Your task to perform on an android device: open app "Gmail" Image 0: 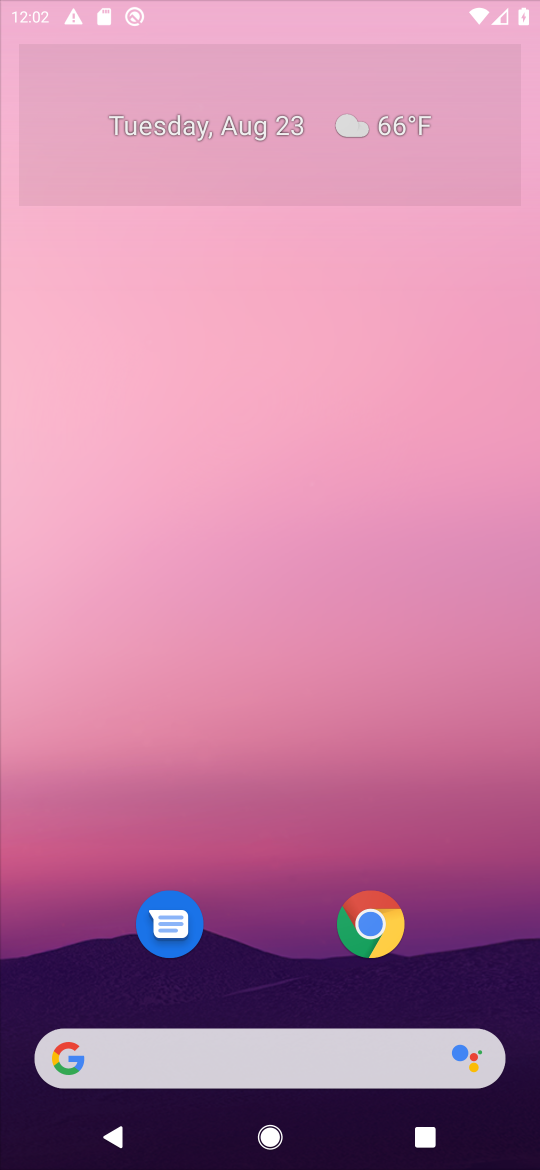
Step 0: press home button
Your task to perform on an android device: open app "Gmail" Image 1: 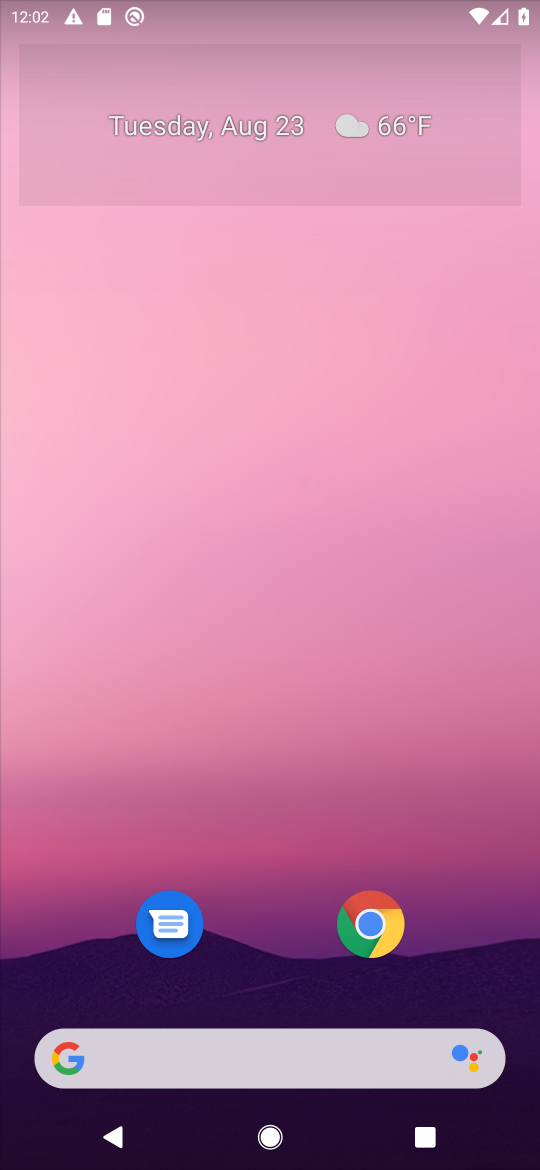
Step 1: drag from (456, 880) to (471, 136)
Your task to perform on an android device: open app "Gmail" Image 2: 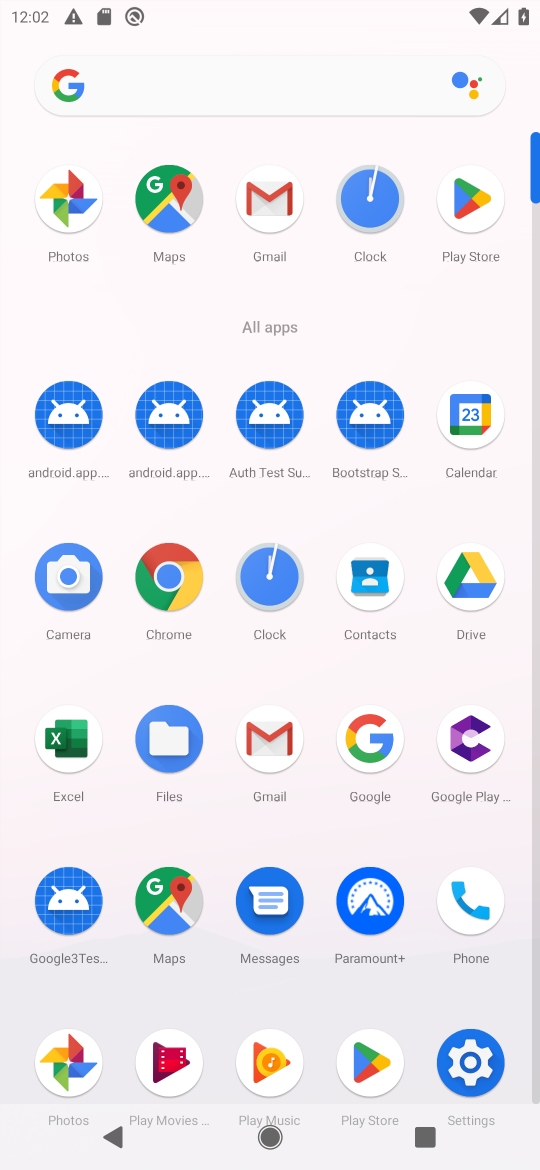
Step 2: click (471, 203)
Your task to perform on an android device: open app "Gmail" Image 3: 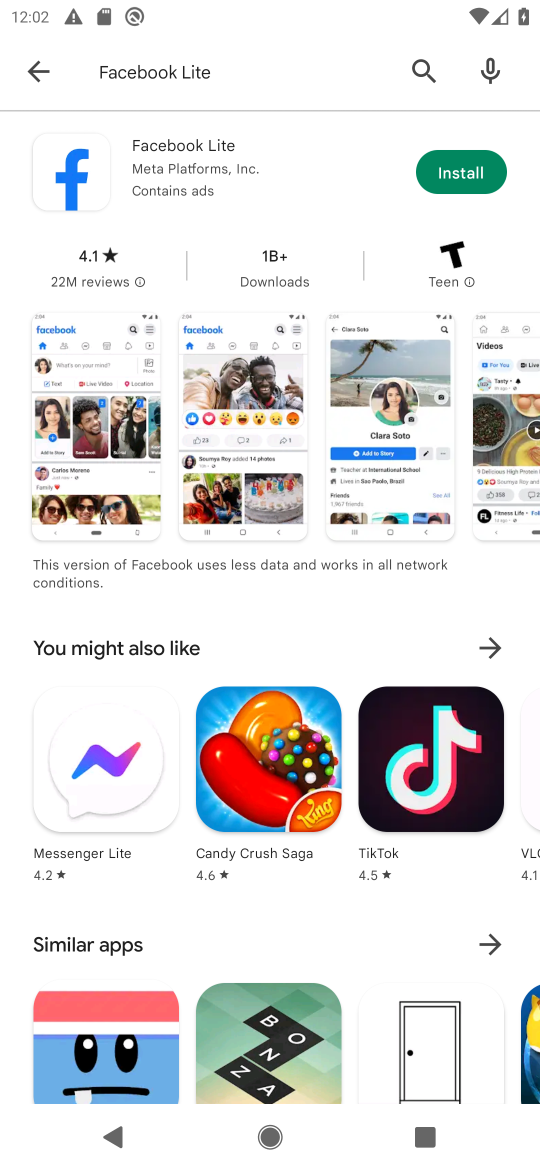
Step 3: press back button
Your task to perform on an android device: open app "Gmail" Image 4: 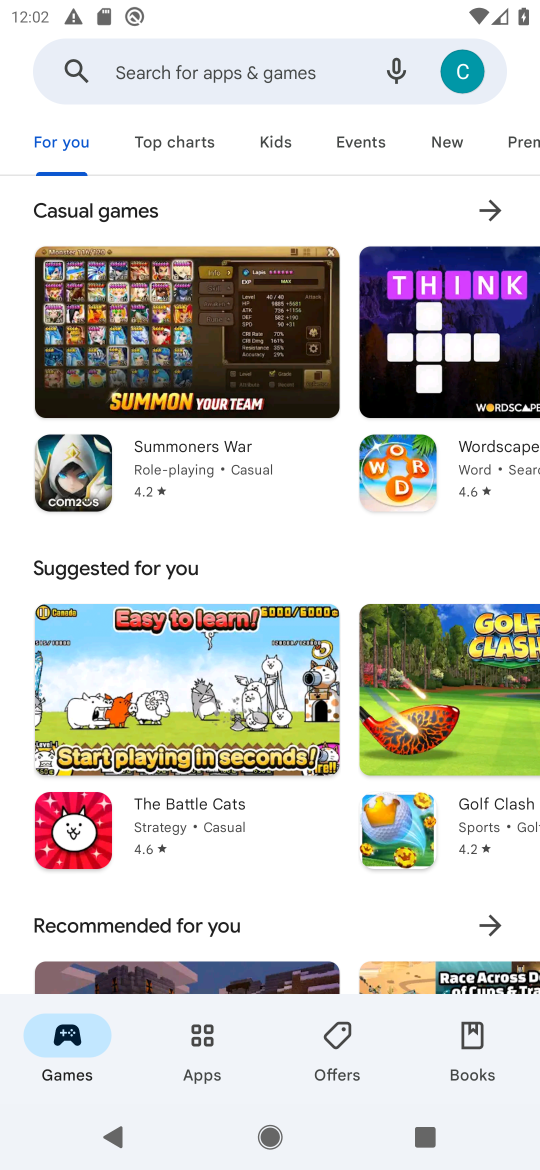
Step 4: click (199, 59)
Your task to perform on an android device: open app "Gmail" Image 5: 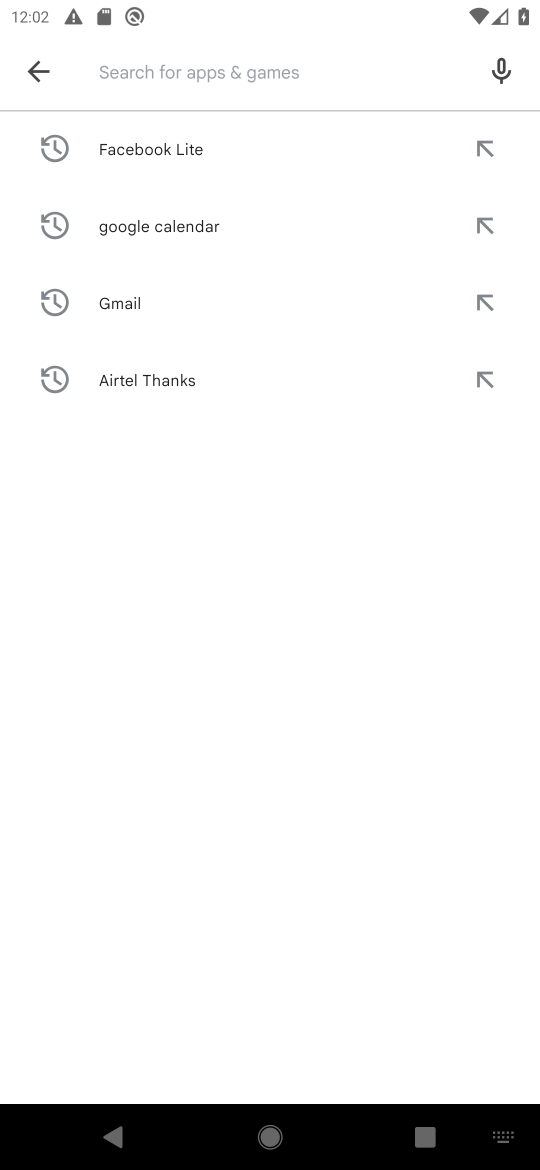
Step 5: type "gmail"
Your task to perform on an android device: open app "Gmail" Image 6: 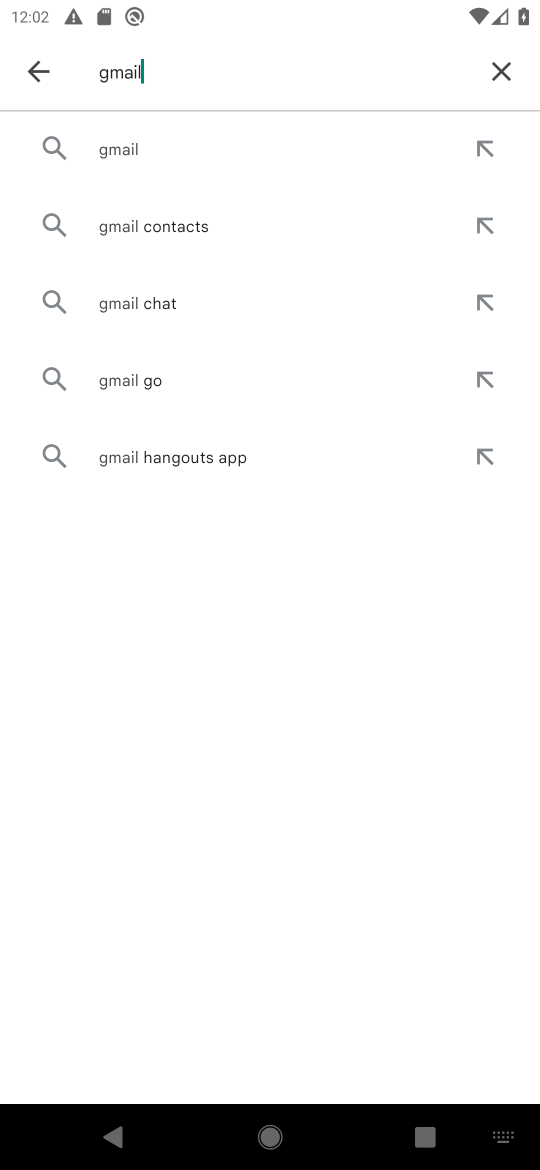
Step 6: click (185, 152)
Your task to perform on an android device: open app "Gmail" Image 7: 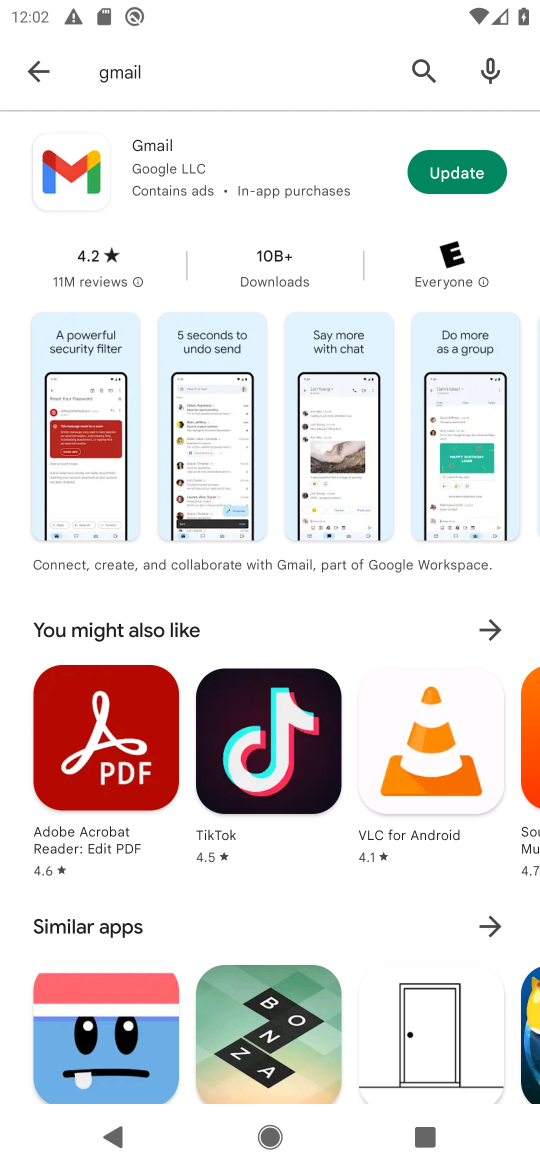
Step 7: click (445, 157)
Your task to perform on an android device: open app "Gmail" Image 8: 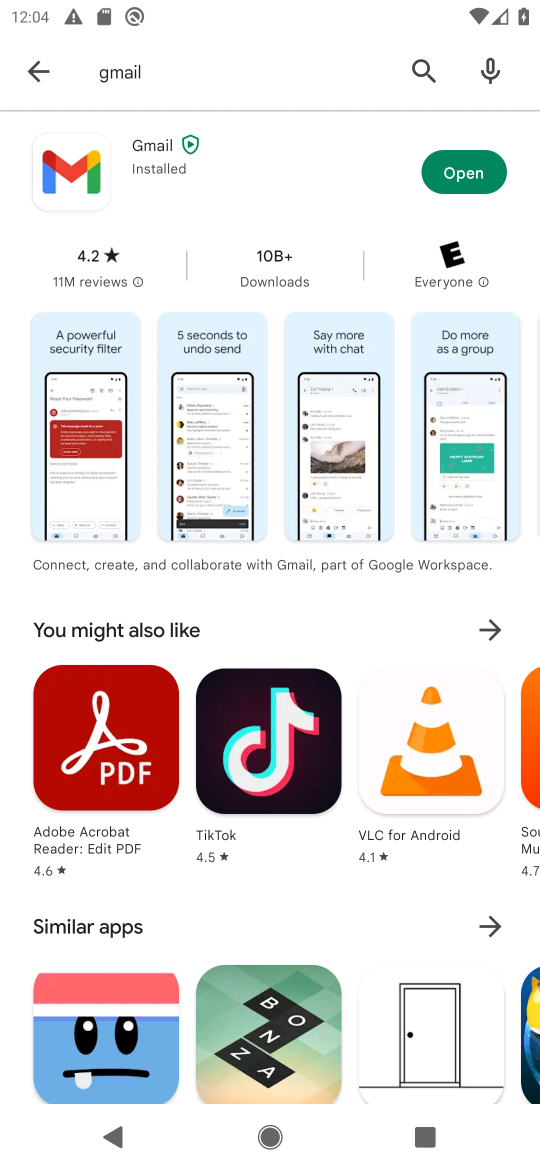
Step 8: click (460, 166)
Your task to perform on an android device: open app "Gmail" Image 9: 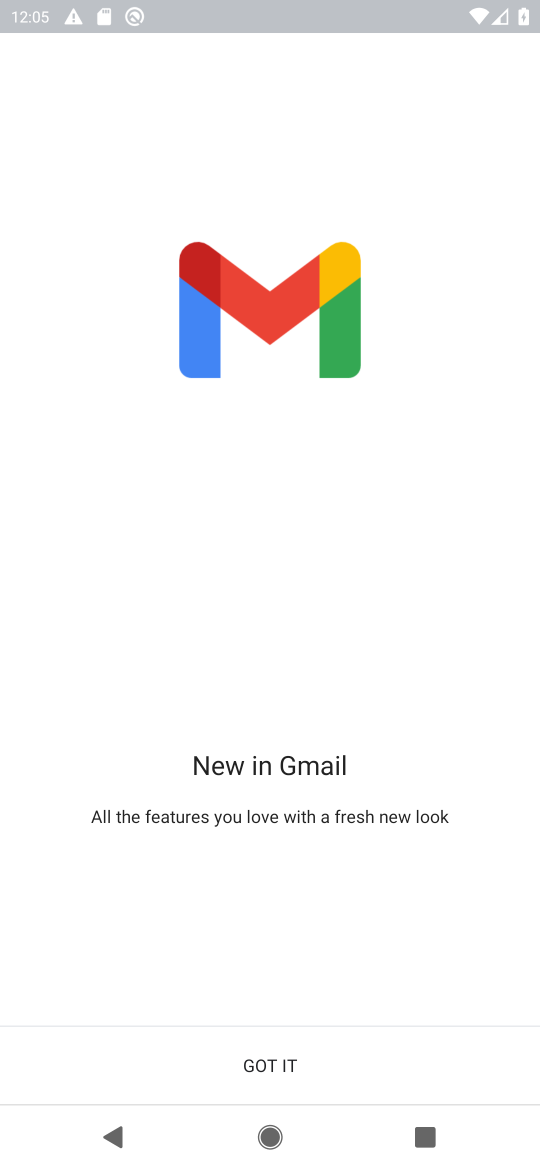
Step 9: task complete